Your task to perform on an android device: What is the recent news? Image 0: 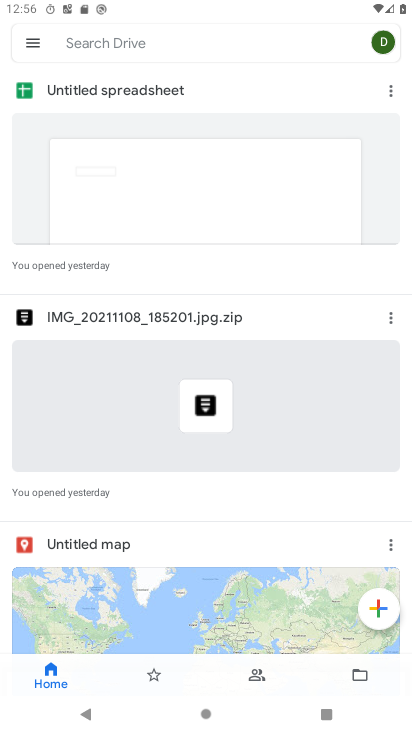
Step 0: press home button
Your task to perform on an android device: What is the recent news? Image 1: 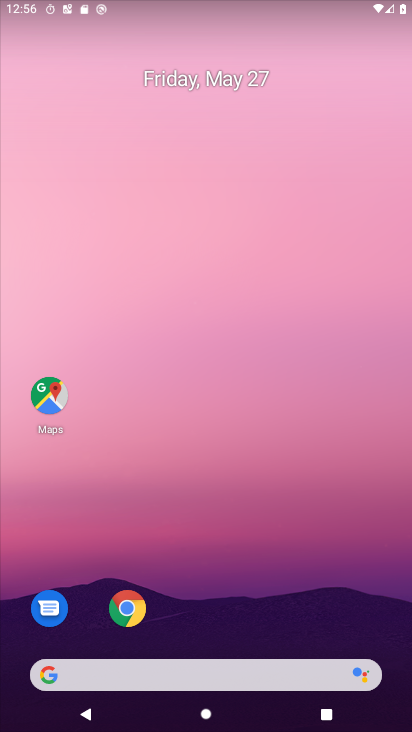
Step 1: task complete